Your task to perform on an android device: open chrome privacy settings Image 0: 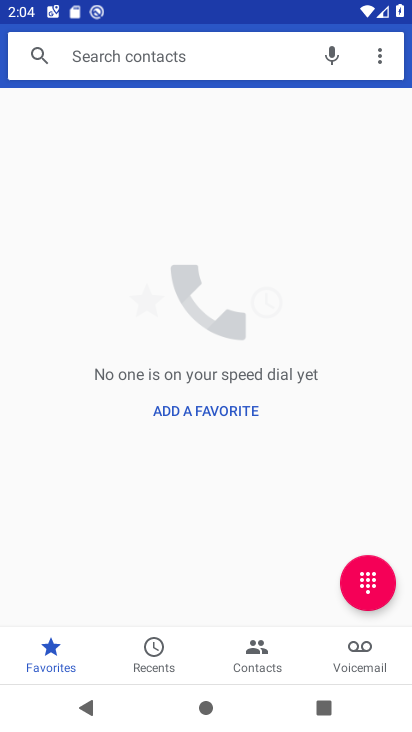
Step 0: press home button
Your task to perform on an android device: open chrome privacy settings Image 1: 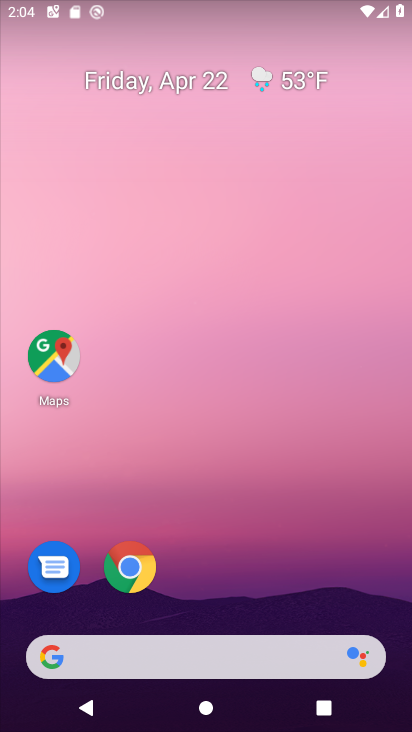
Step 1: click (147, 564)
Your task to perform on an android device: open chrome privacy settings Image 2: 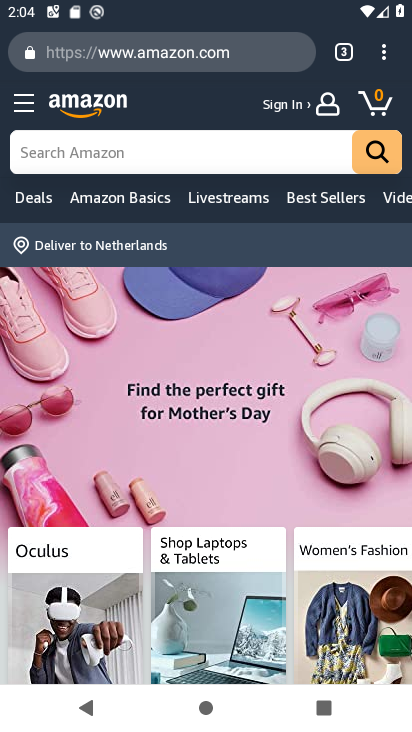
Step 2: drag from (381, 57) to (272, 608)
Your task to perform on an android device: open chrome privacy settings Image 3: 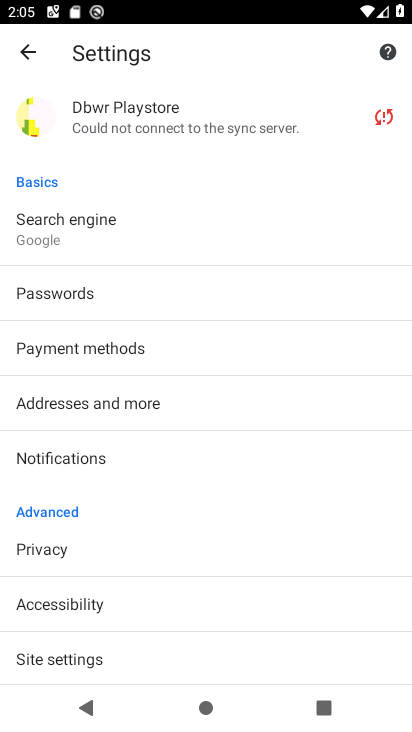
Step 3: click (127, 556)
Your task to perform on an android device: open chrome privacy settings Image 4: 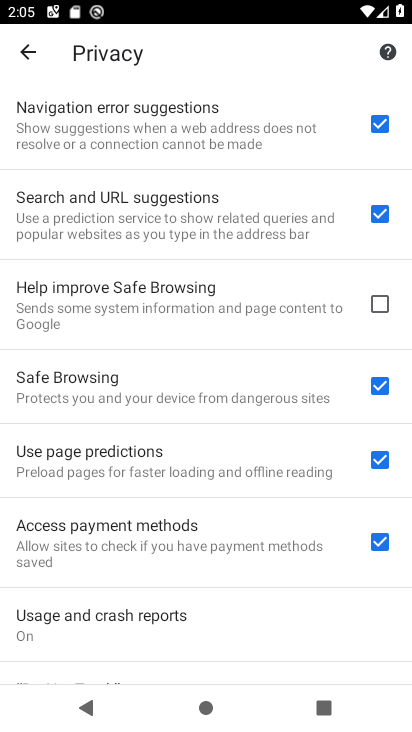
Step 4: task complete